Your task to perform on an android device: Check the news Image 0: 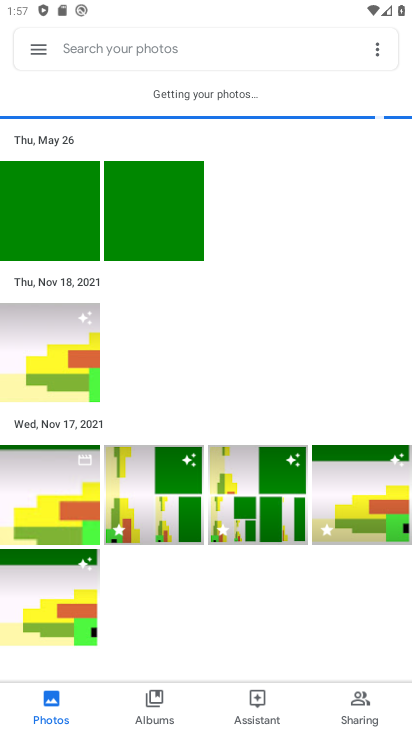
Step 0: press home button
Your task to perform on an android device: Check the news Image 1: 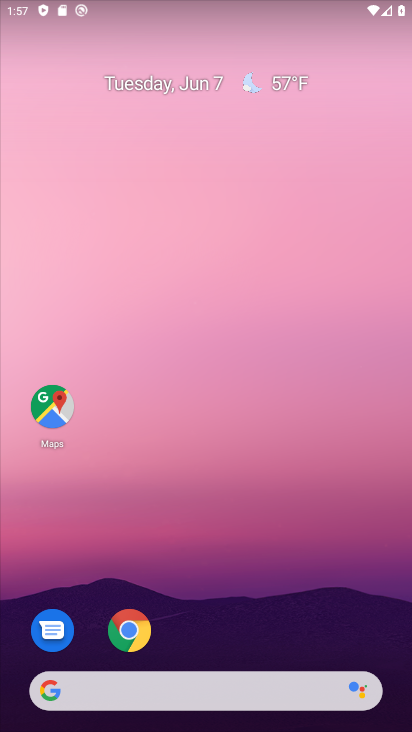
Step 1: task complete